Your task to perform on an android device: Open location settings Image 0: 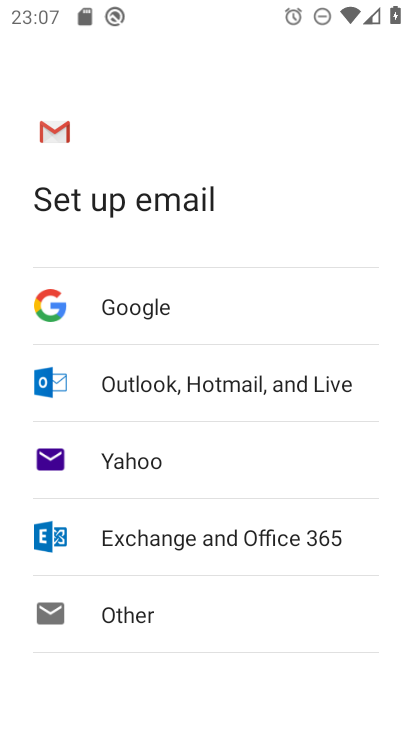
Step 0: press home button
Your task to perform on an android device: Open location settings Image 1: 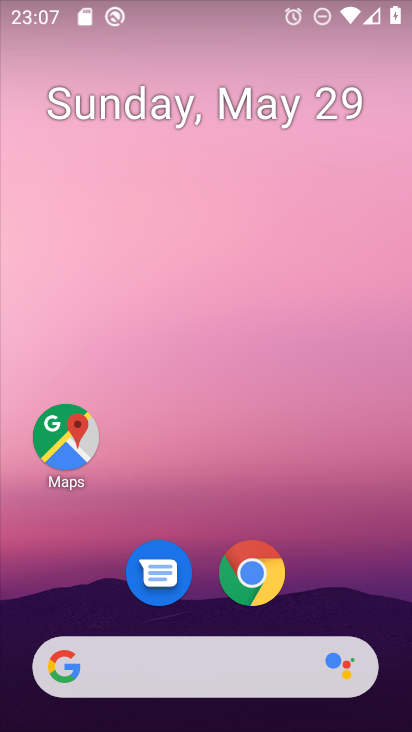
Step 1: drag from (235, 474) to (260, 3)
Your task to perform on an android device: Open location settings Image 2: 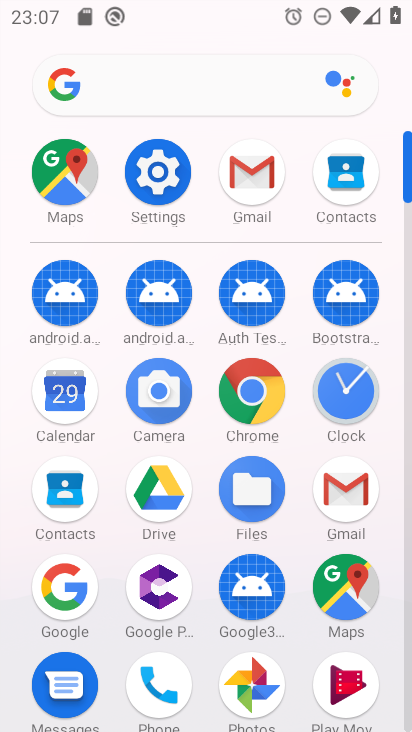
Step 2: click (158, 166)
Your task to perform on an android device: Open location settings Image 3: 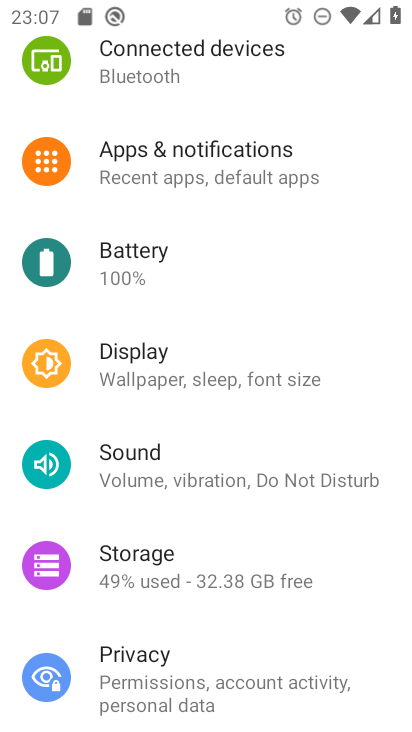
Step 3: drag from (258, 600) to (244, 169)
Your task to perform on an android device: Open location settings Image 4: 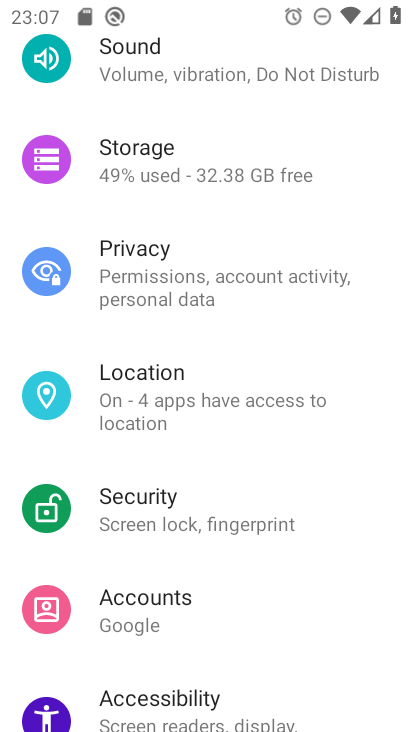
Step 4: click (215, 391)
Your task to perform on an android device: Open location settings Image 5: 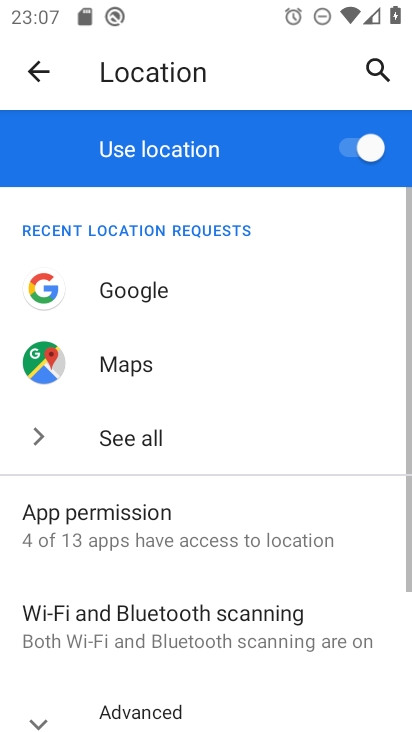
Step 5: task complete